Your task to perform on an android device: Open Yahoo.com Image 0: 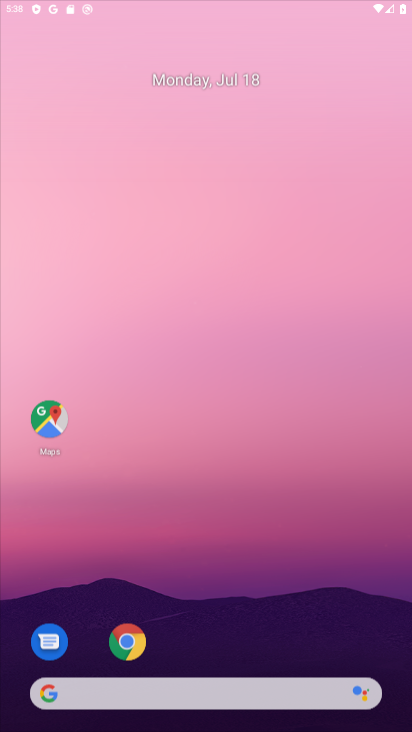
Step 0: press home button
Your task to perform on an android device: Open Yahoo.com Image 1: 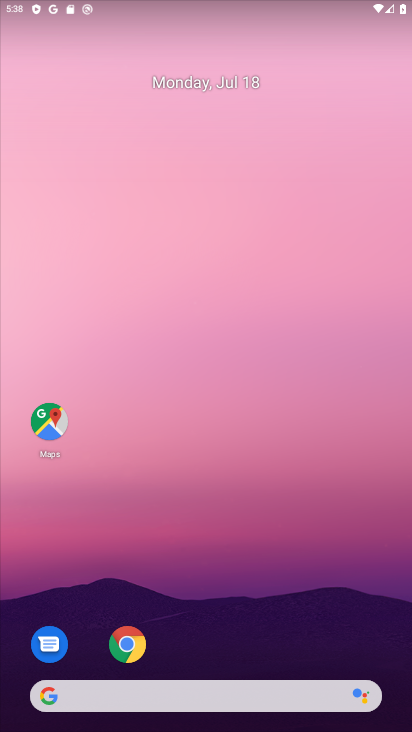
Step 1: click (49, 696)
Your task to perform on an android device: Open Yahoo.com Image 2: 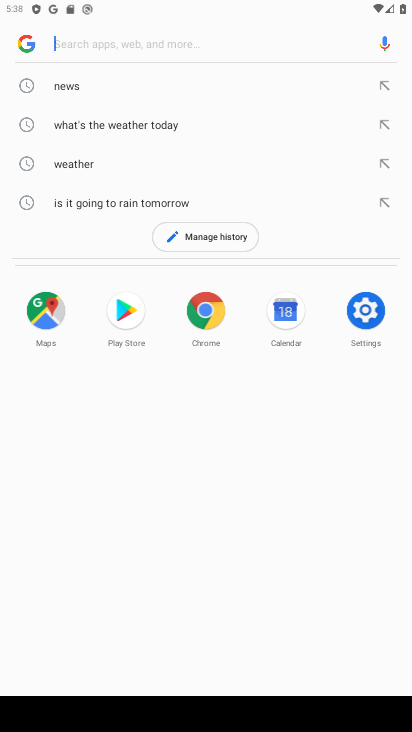
Step 2: type "Yahoo.com"
Your task to perform on an android device: Open Yahoo.com Image 3: 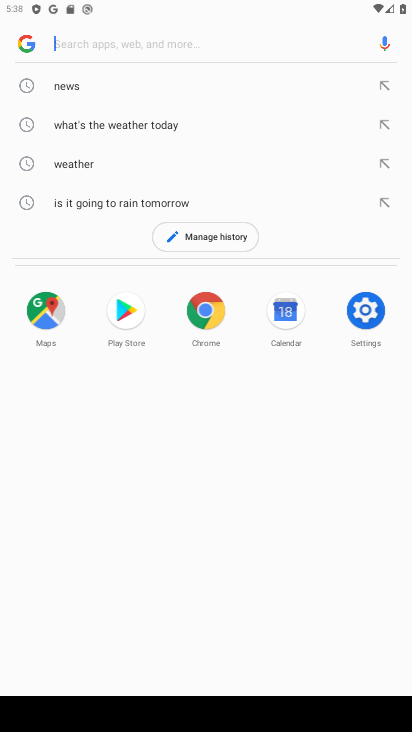
Step 3: click (82, 39)
Your task to perform on an android device: Open Yahoo.com Image 4: 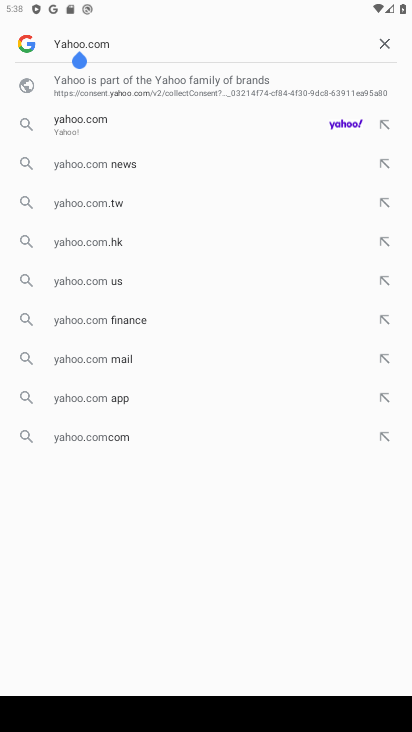
Step 4: press enter
Your task to perform on an android device: Open Yahoo.com Image 5: 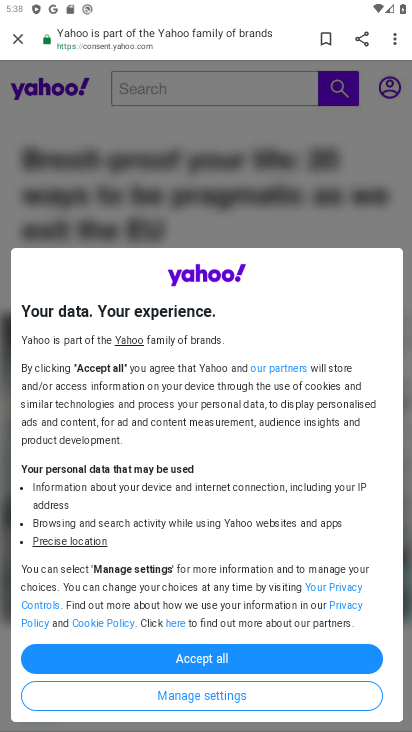
Step 5: click (210, 658)
Your task to perform on an android device: Open Yahoo.com Image 6: 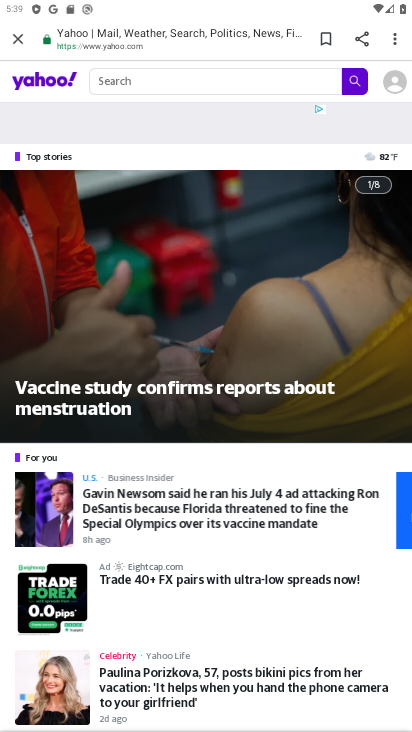
Step 6: task complete